Your task to perform on an android device: Open Google Chrome Image 0: 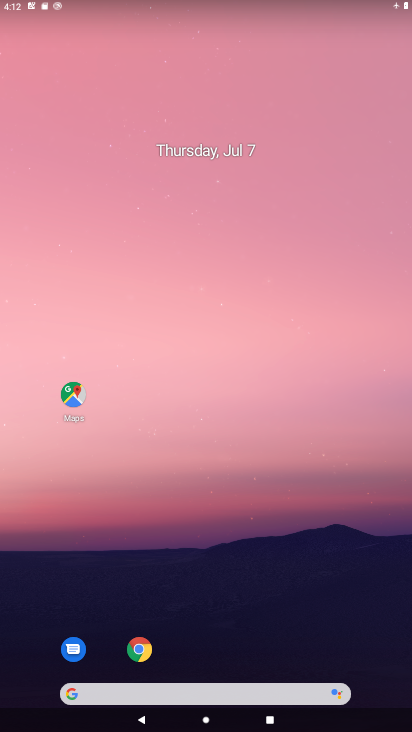
Step 0: click (138, 651)
Your task to perform on an android device: Open Google Chrome Image 1: 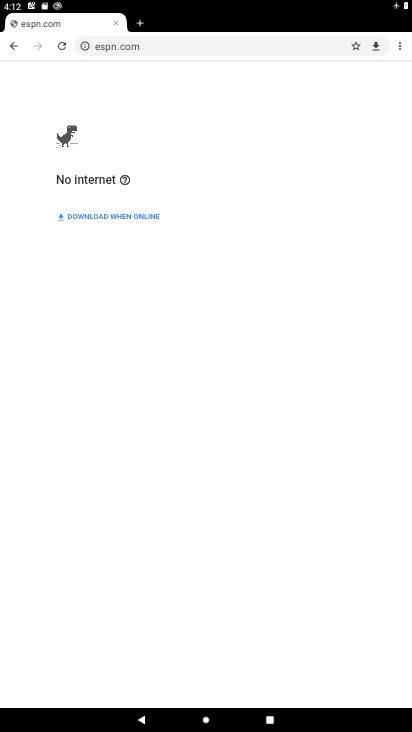
Step 1: task complete